Your task to perform on an android device: Open CNN.com Image 0: 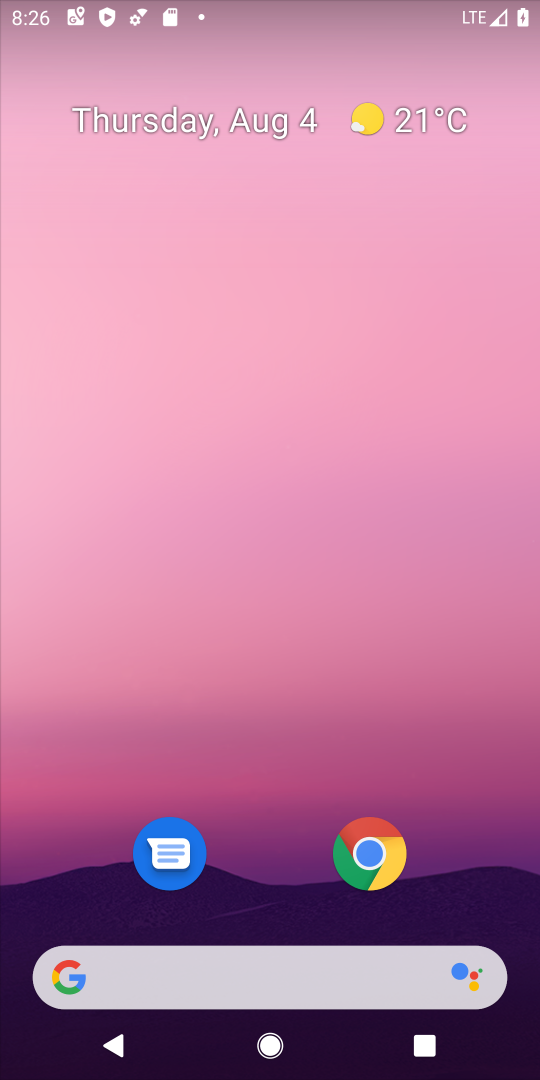
Step 0: drag from (198, 569) to (201, 201)
Your task to perform on an android device: Open CNN.com Image 1: 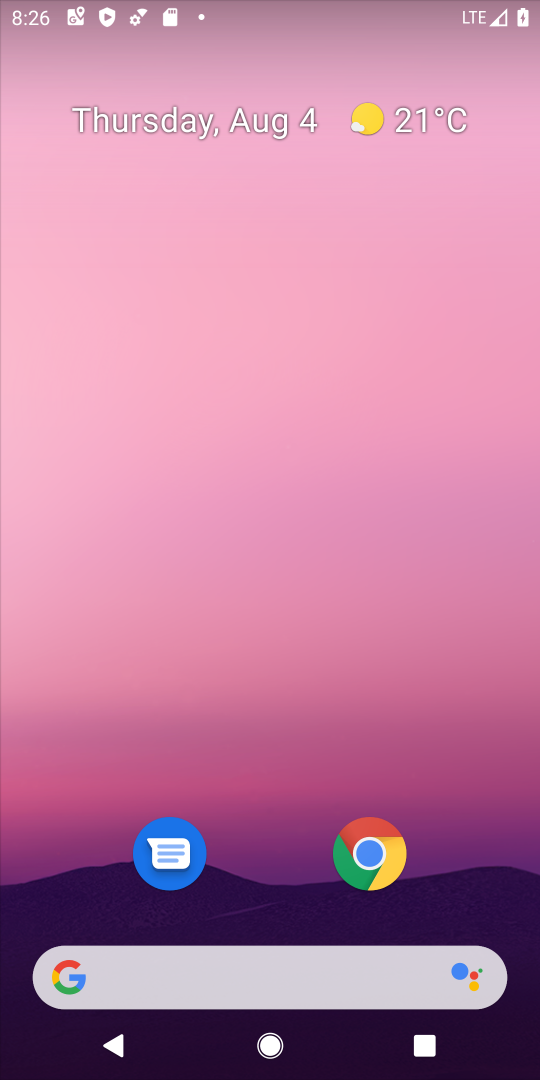
Step 1: drag from (250, 736) to (182, 48)
Your task to perform on an android device: Open CNN.com Image 2: 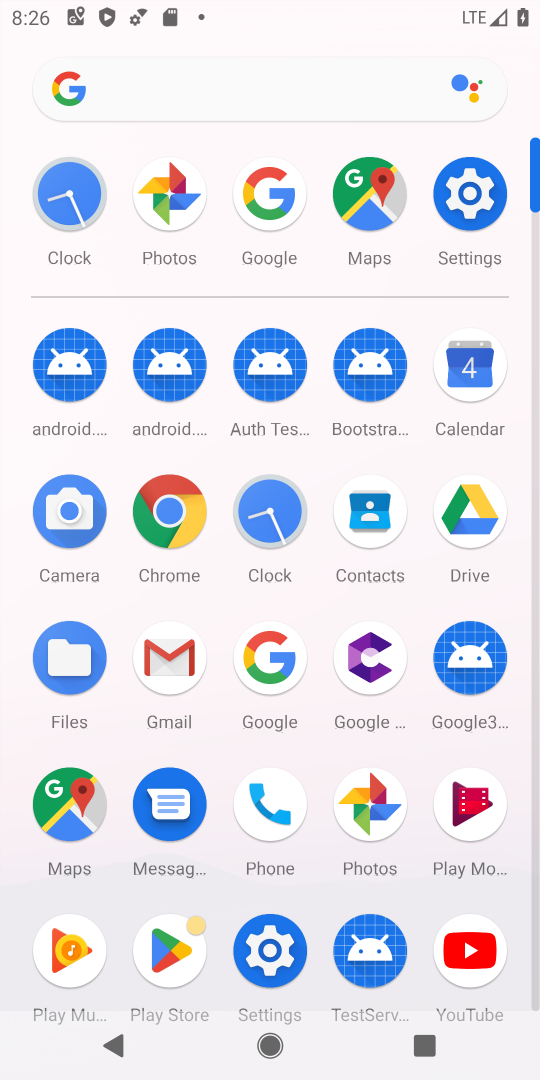
Step 2: click (273, 194)
Your task to perform on an android device: Open CNN.com Image 3: 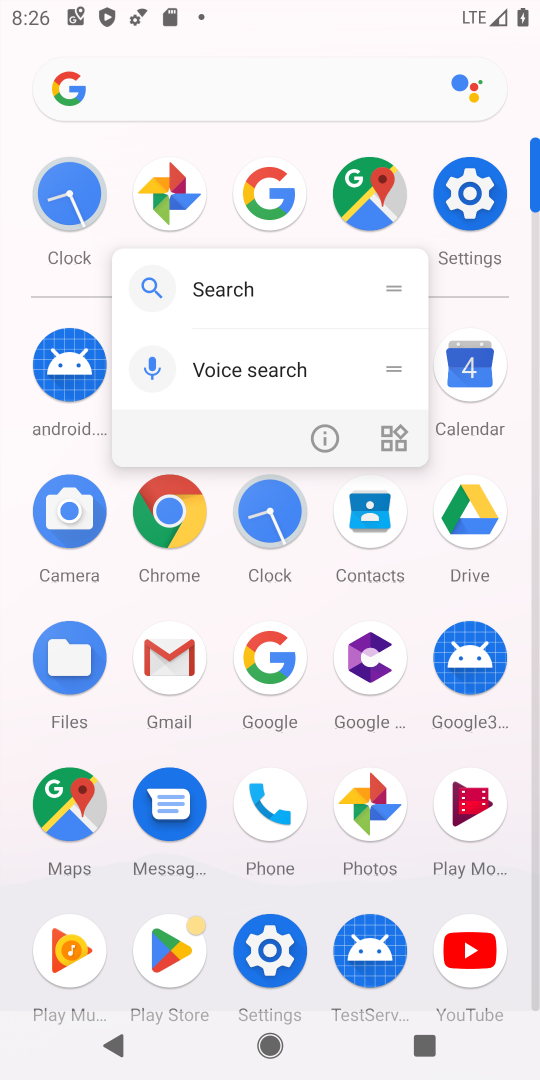
Step 3: click (259, 187)
Your task to perform on an android device: Open CNN.com Image 4: 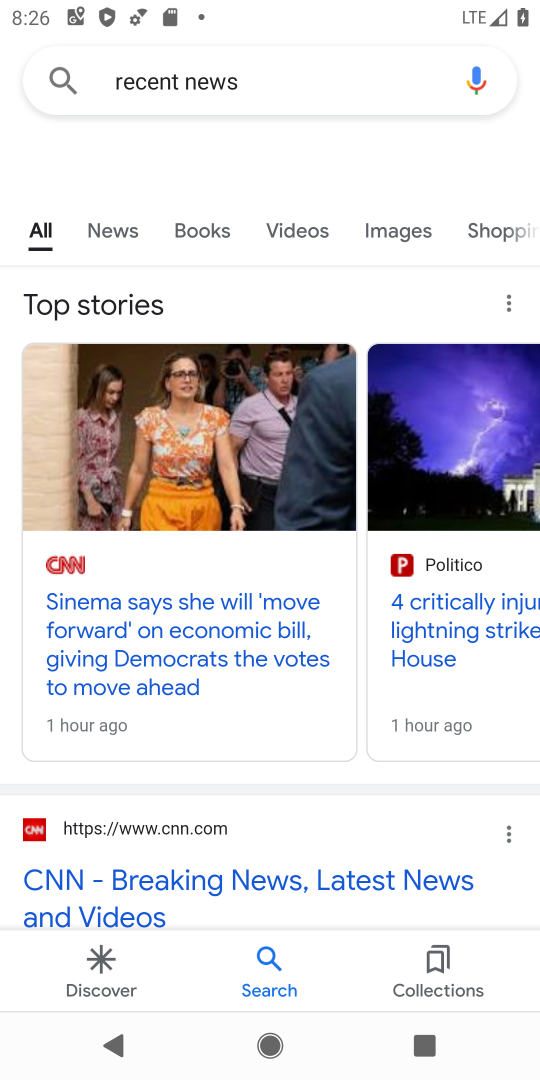
Step 4: click (241, 88)
Your task to perform on an android device: Open CNN.com Image 5: 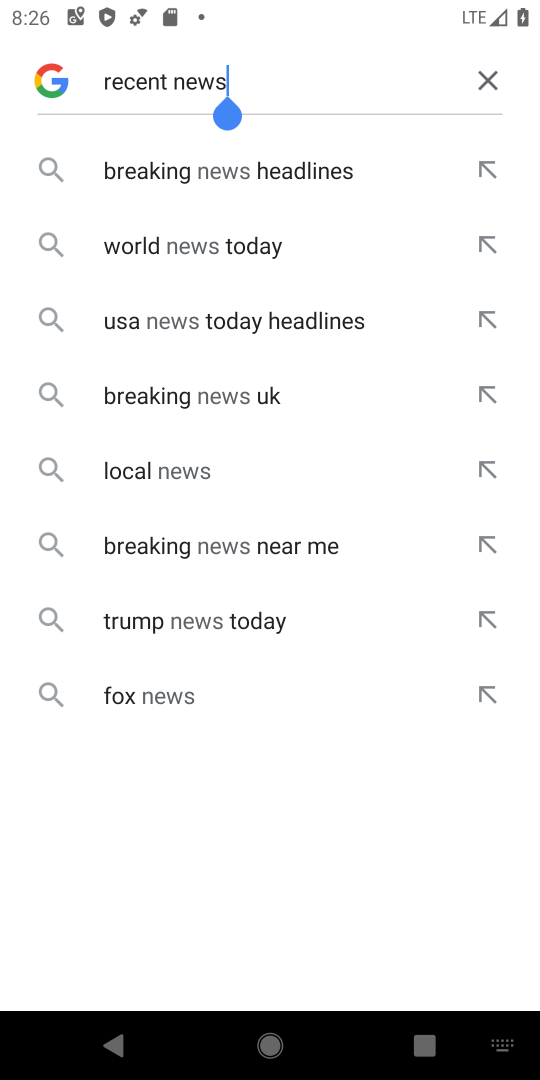
Step 5: click (486, 84)
Your task to perform on an android device: Open CNN.com Image 6: 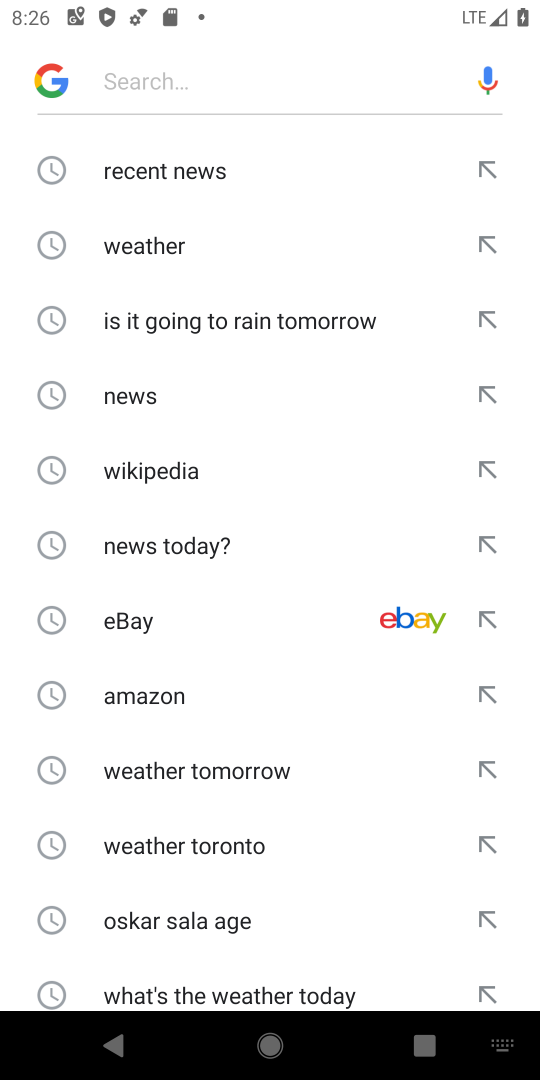
Step 6: drag from (177, 930) to (209, 236)
Your task to perform on an android device: Open CNN.com Image 7: 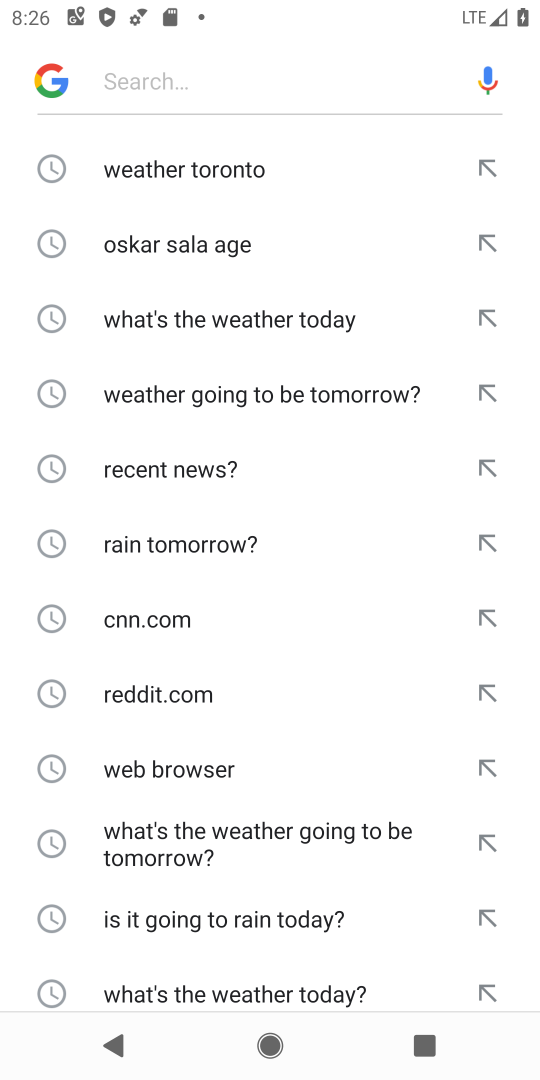
Step 7: click (184, 641)
Your task to perform on an android device: Open CNN.com Image 8: 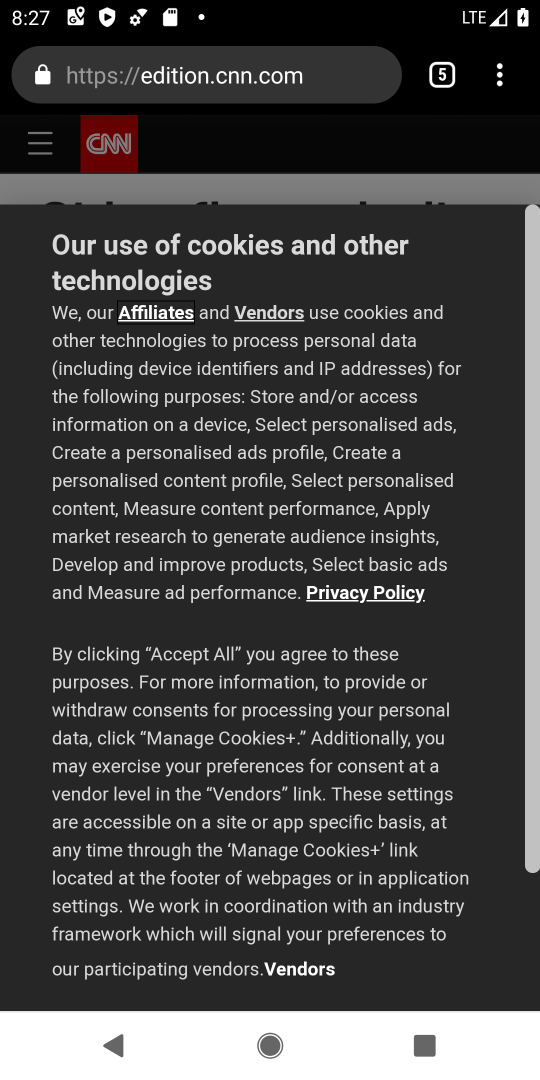
Step 8: task complete